Your task to perform on an android device: toggle improve location accuracy Image 0: 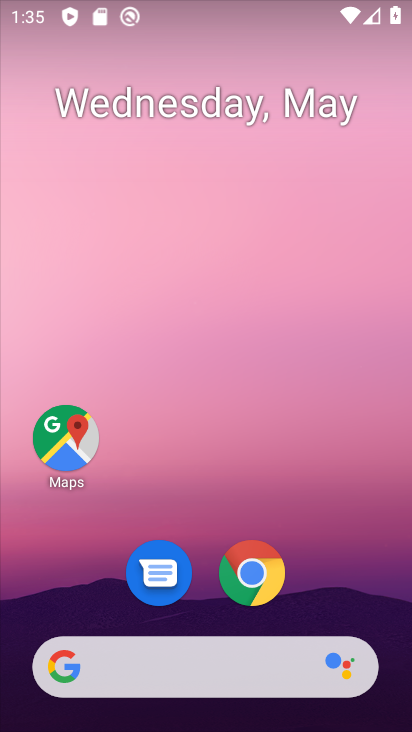
Step 0: drag from (82, 625) to (188, 163)
Your task to perform on an android device: toggle improve location accuracy Image 1: 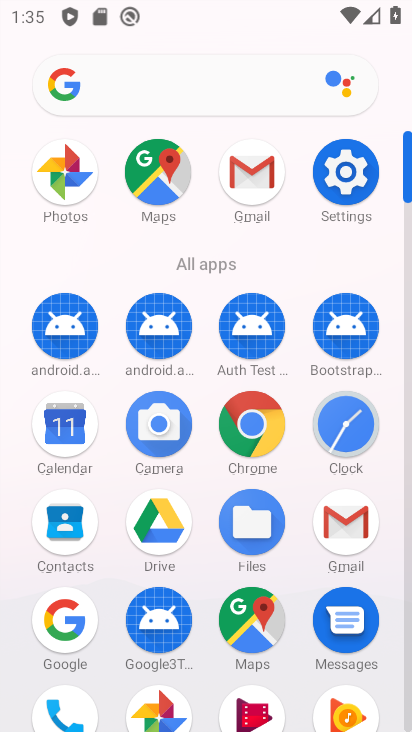
Step 1: drag from (151, 663) to (188, 438)
Your task to perform on an android device: toggle improve location accuracy Image 2: 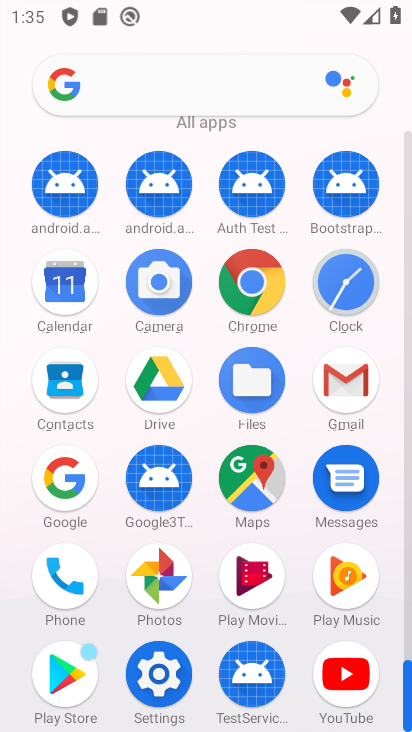
Step 2: click (165, 675)
Your task to perform on an android device: toggle improve location accuracy Image 3: 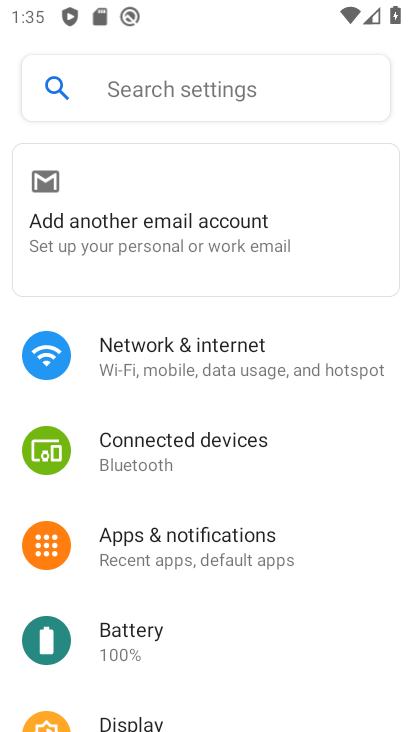
Step 3: drag from (88, 674) to (246, 300)
Your task to perform on an android device: toggle improve location accuracy Image 4: 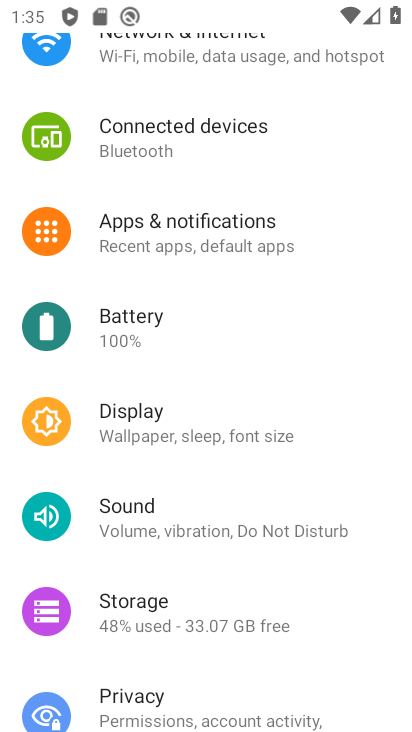
Step 4: drag from (158, 659) to (254, 306)
Your task to perform on an android device: toggle improve location accuracy Image 5: 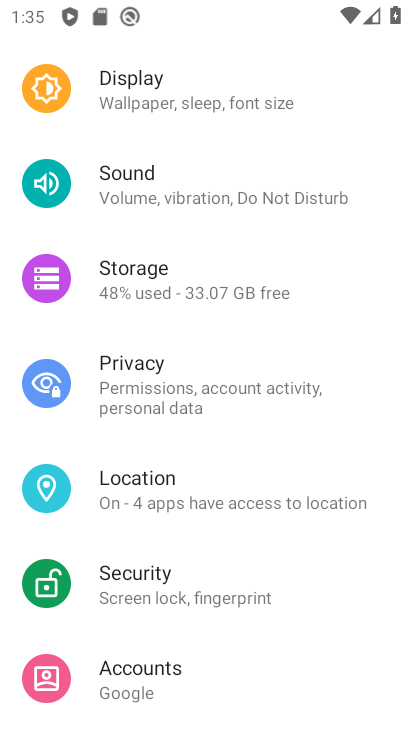
Step 5: click (193, 500)
Your task to perform on an android device: toggle improve location accuracy Image 6: 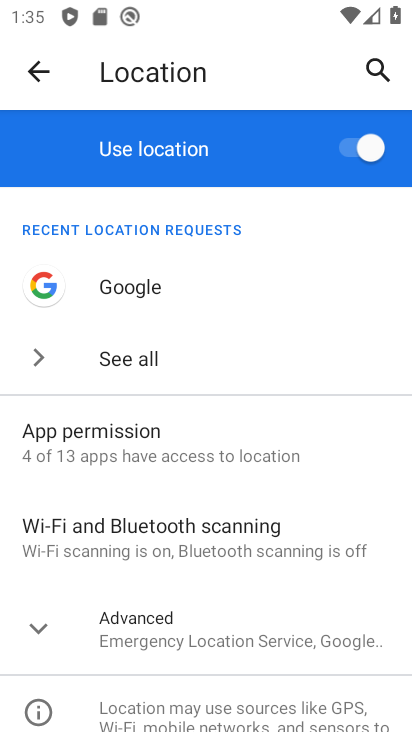
Step 6: click (214, 637)
Your task to perform on an android device: toggle improve location accuracy Image 7: 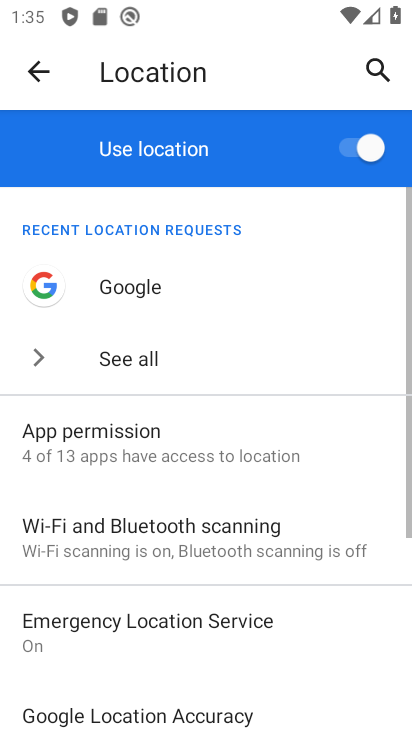
Step 7: drag from (192, 701) to (256, 391)
Your task to perform on an android device: toggle improve location accuracy Image 8: 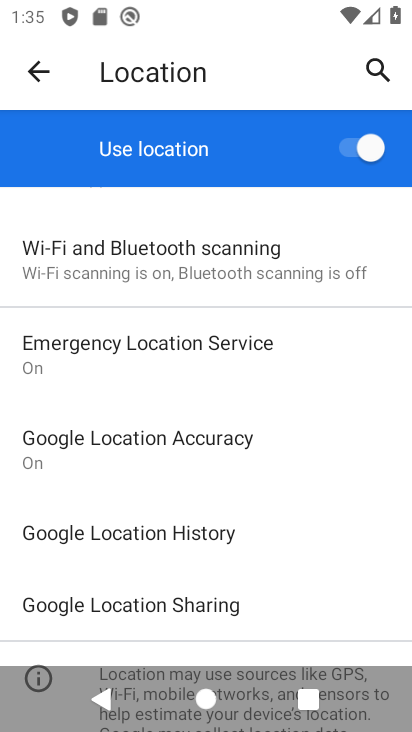
Step 8: click (208, 454)
Your task to perform on an android device: toggle improve location accuracy Image 9: 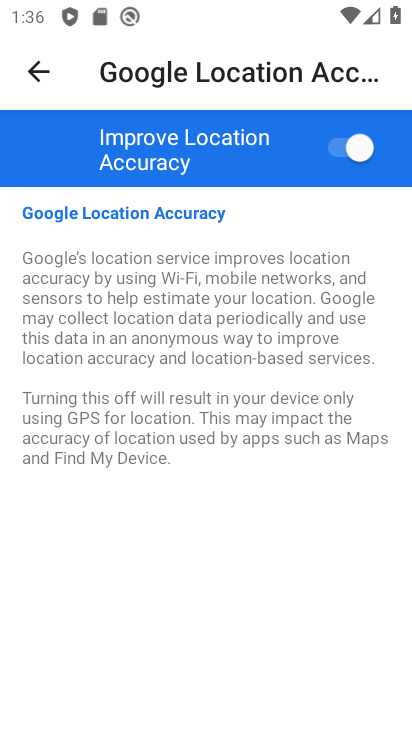
Step 9: click (340, 148)
Your task to perform on an android device: toggle improve location accuracy Image 10: 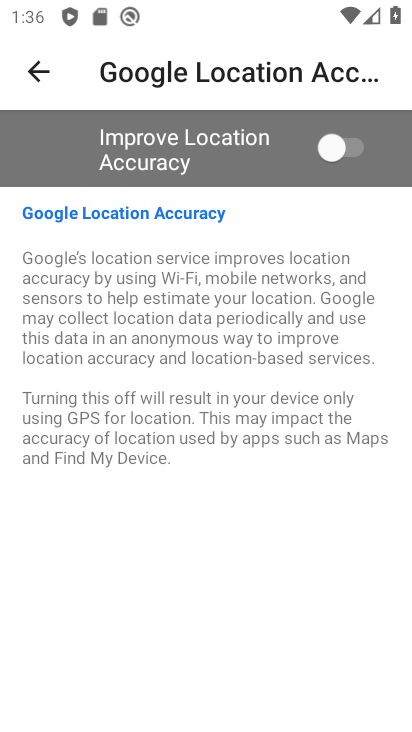
Step 10: task complete